Your task to perform on an android device: create a new album in the google photos Image 0: 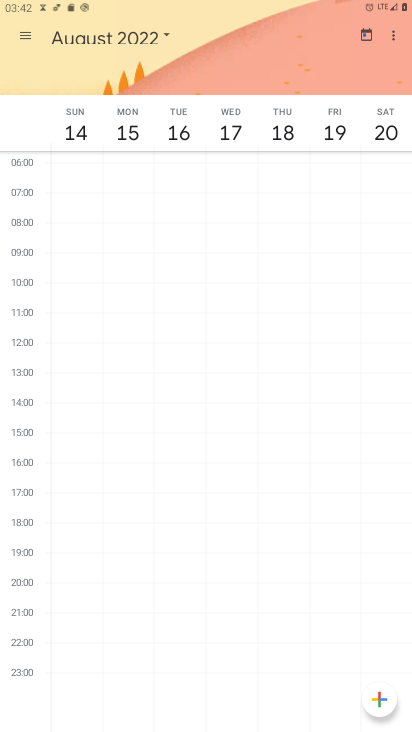
Step 0: press home button
Your task to perform on an android device: create a new album in the google photos Image 1: 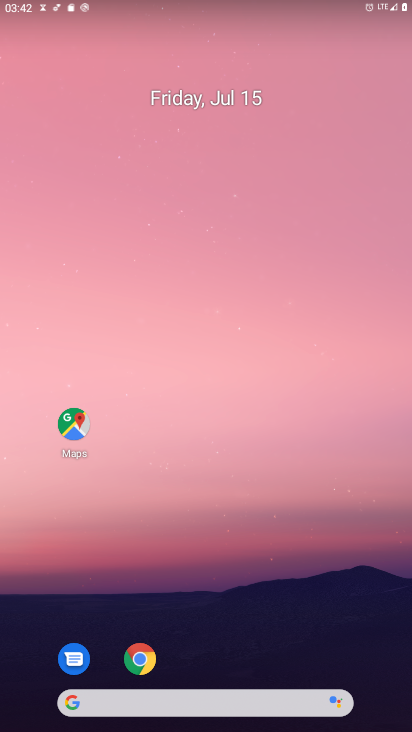
Step 1: drag from (308, 711) to (348, 420)
Your task to perform on an android device: create a new album in the google photos Image 2: 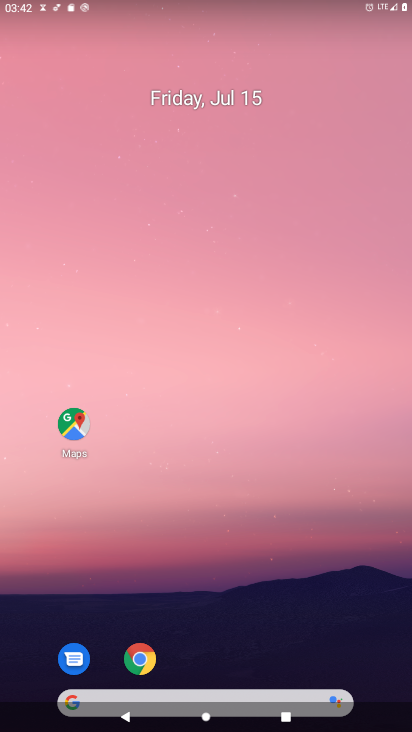
Step 2: drag from (193, 647) to (235, 182)
Your task to perform on an android device: create a new album in the google photos Image 3: 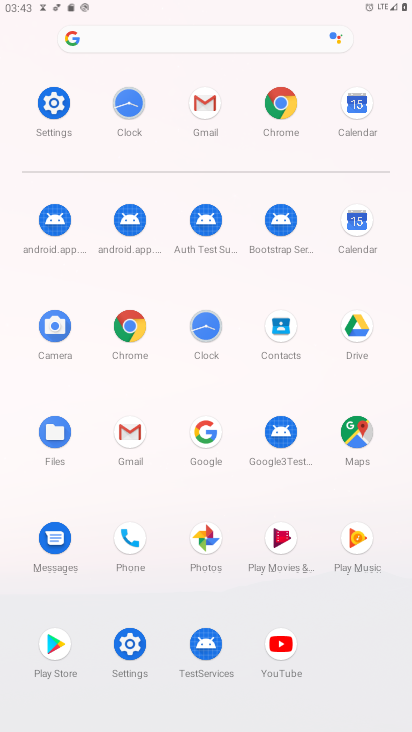
Step 3: click (207, 531)
Your task to perform on an android device: create a new album in the google photos Image 4: 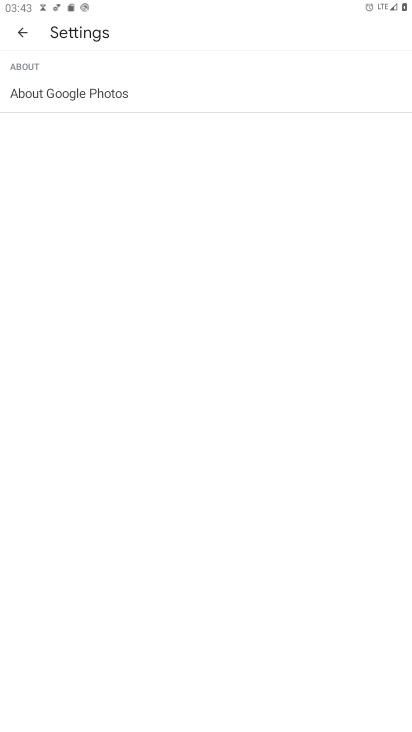
Step 4: click (30, 28)
Your task to perform on an android device: create a new album in the google photos Image 5: 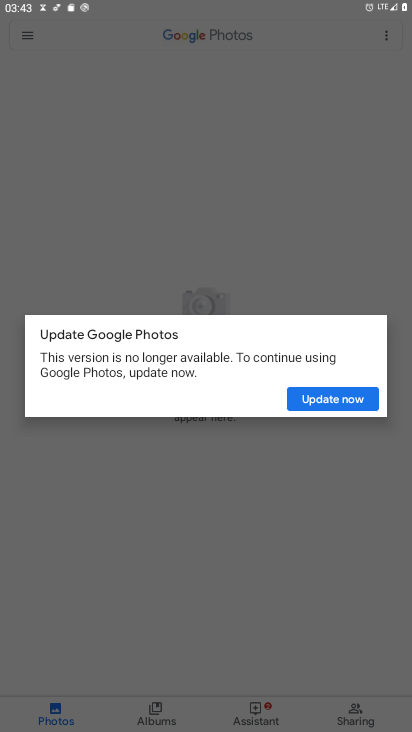
Step 5: task complete